Your task to perform on an android device: turn off location Image 0: 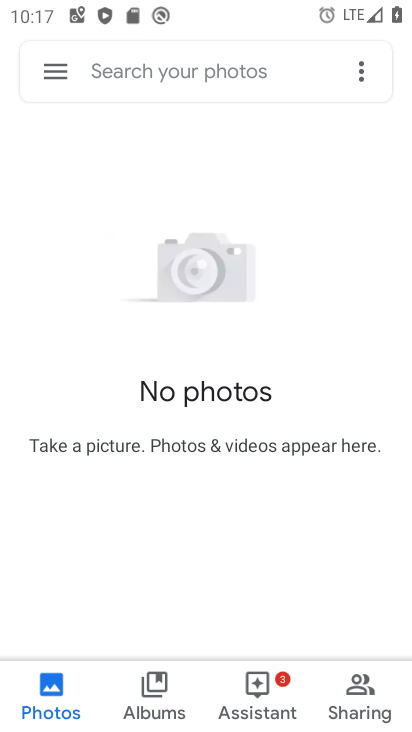
Step 0: press home button
Your task to perform on an android device: turn off location Image 1: 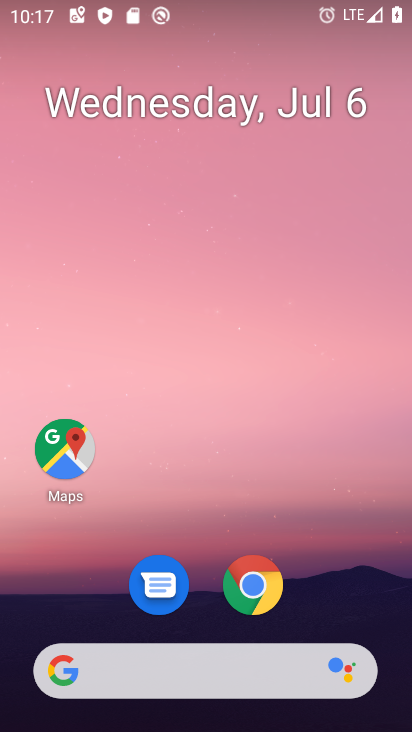
Step 1: drag from (222, 473) to (233, 7)
Your task to perform on an android device: turn off location Image 2: 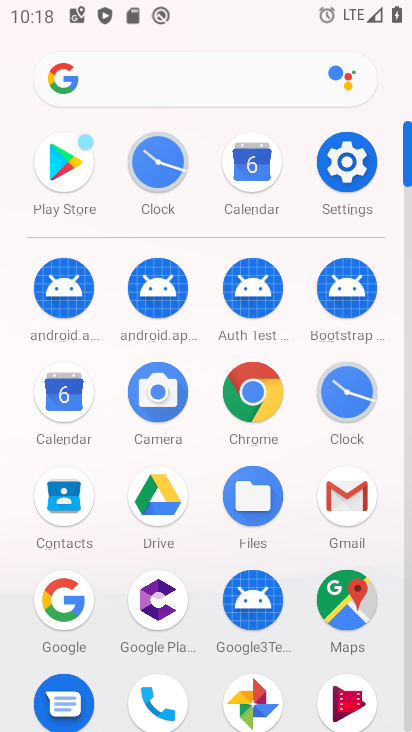
Step 2: click (354, 165)
Your task to perform on an android device: turn off location Image 3: 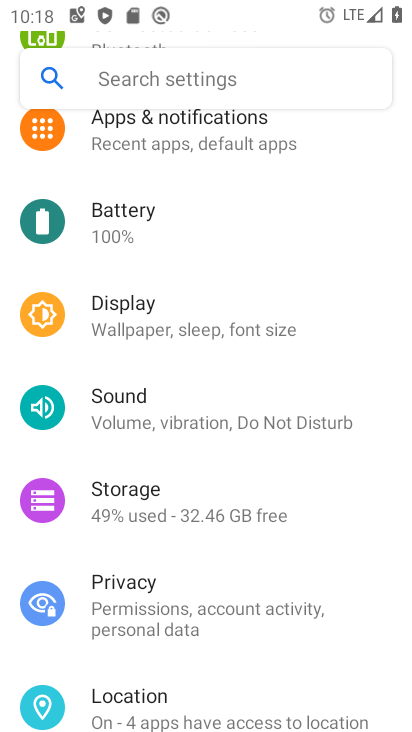
Step 3: click (208, 719)
Your task to perform on an android device: turn off location Image 4: 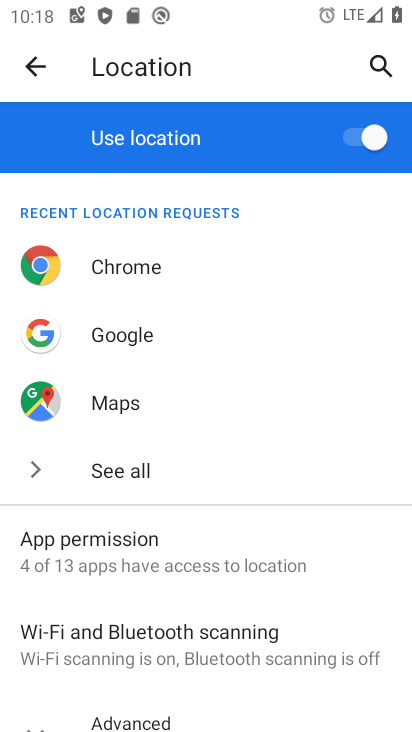
Step 4: click (362, 131)
Your task to perform on an android device: turn off location Image 5: 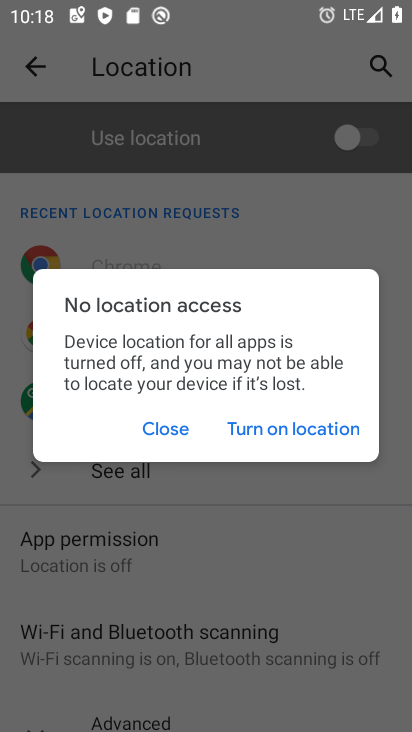
Step 5: click (173, 427)
Your task to perform on an android device: turn off location Image 6: 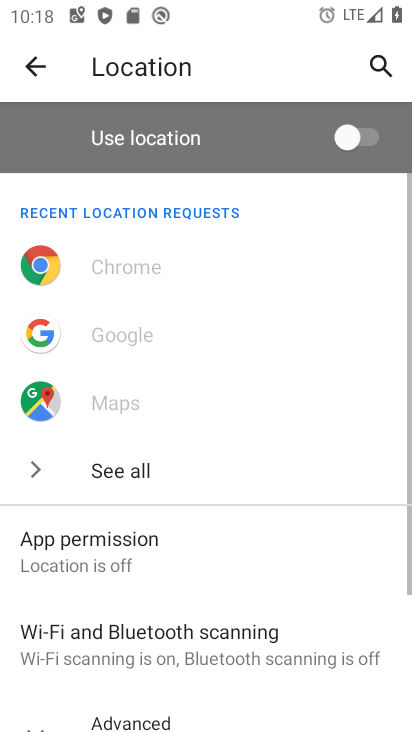
Step 6: task complete